Your task to perform on an android device: turn on wifi Image 0: 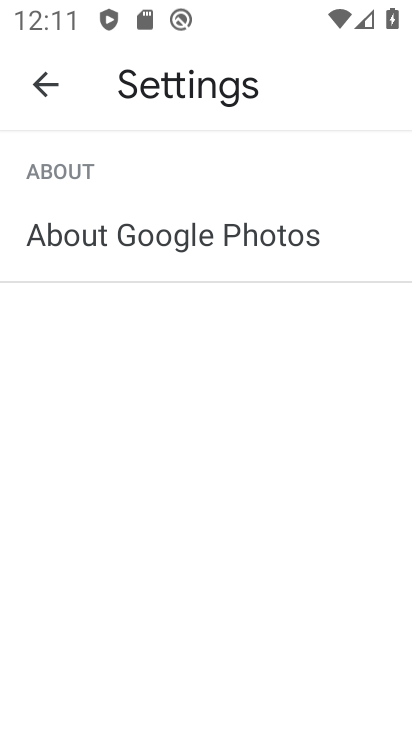
Step 0: press home button
Your task to perform on an android device: turn on wifi Image 1: 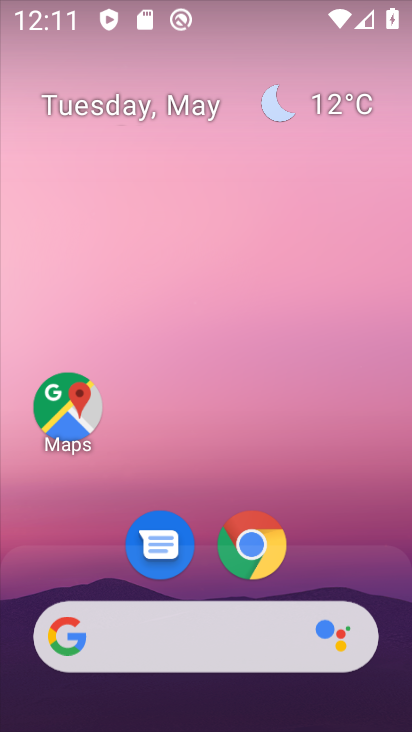
Step 1: task complete